Your task to perform on an android device: turn on notifications settings in the gmail app Image 0: 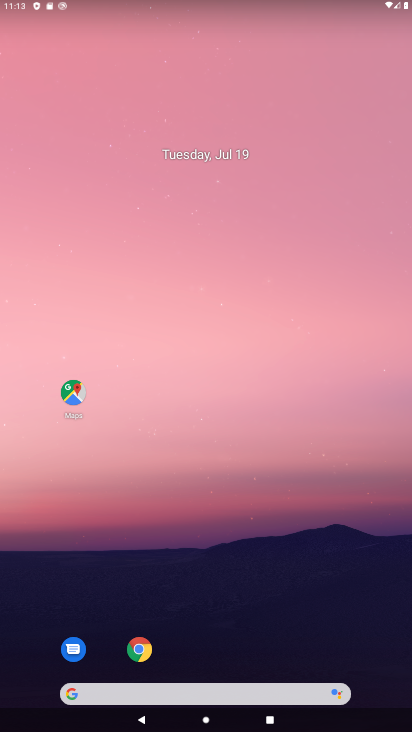
Step 0: drag from (284, 527) to (300, 152)
Your task to perform on an android device: turn on notifications settings in the gmail app Image 1: 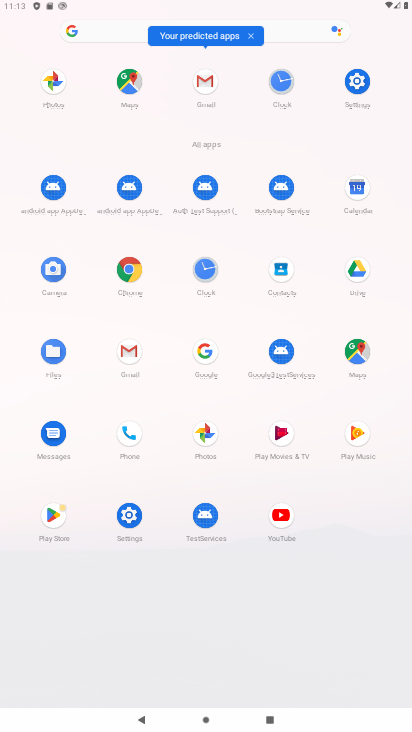
Step 1: click (127, 354)
Your task to perform on an android device: turn on notifications settings in the gmail app Image 2: 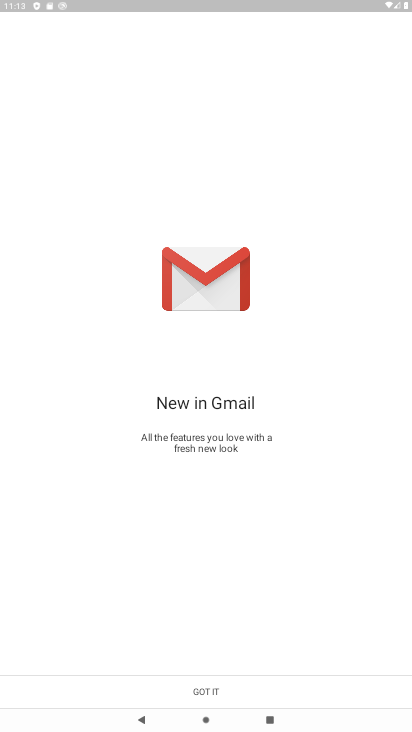
Step 2: click (217, 688)
Your task to perform on an android device: turn on notifications settings in the gmail app Image 3: 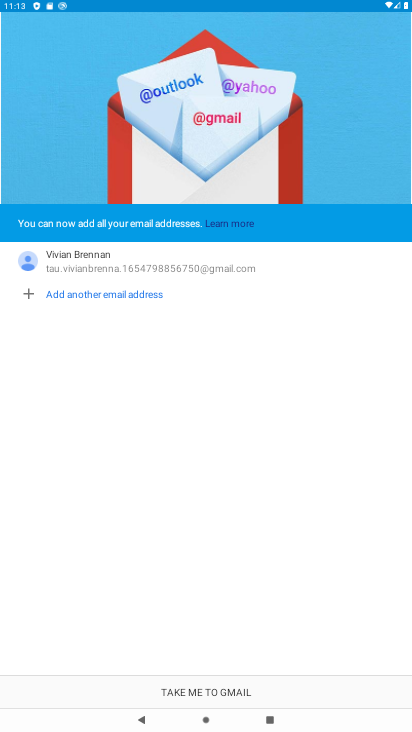
Step 3: click (217, 687)
Your task to perform on an android device: turn on notifications settings in the gmail app Image 4: 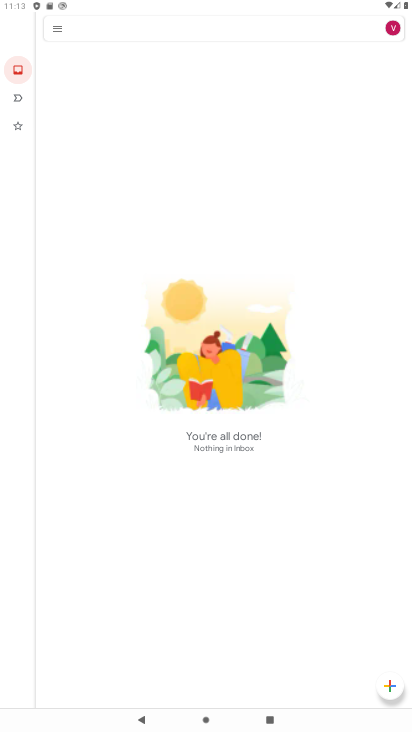
Step 4: task complete